Your task to perform on an android device: Open calendar and show me the third week of next month Image 0: 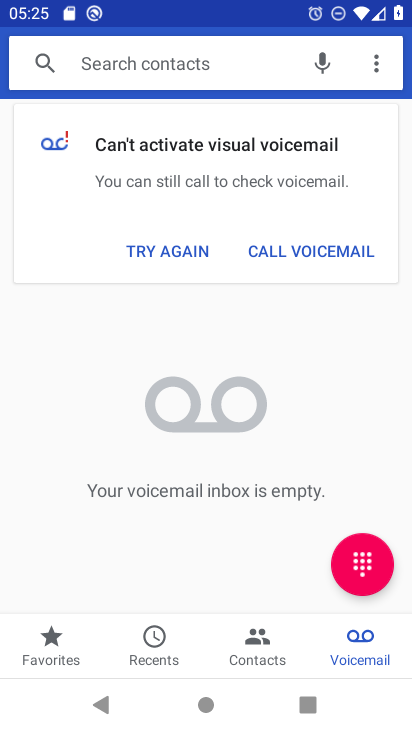
Step 0: press home button
Your task to perform on an android device: Open calendar and show me the third week of next month Image 1: 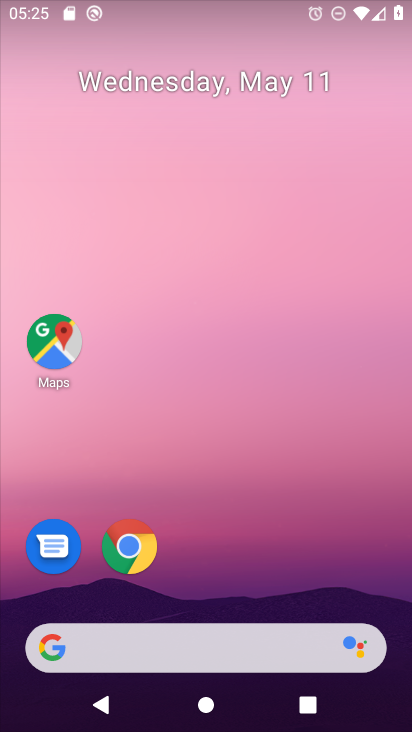
Step 1: drag from (300, 621) to (277, 33)
Your task to perform on an android device: Open calendar and show me the third week of next month Image 2: 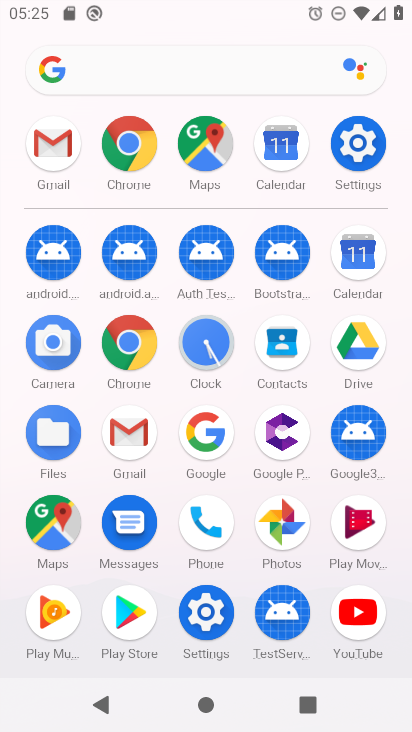
Step 2: click (359, 261)
Your task to perform on an android device: Open calendar and show me the third week of next month Image 3: 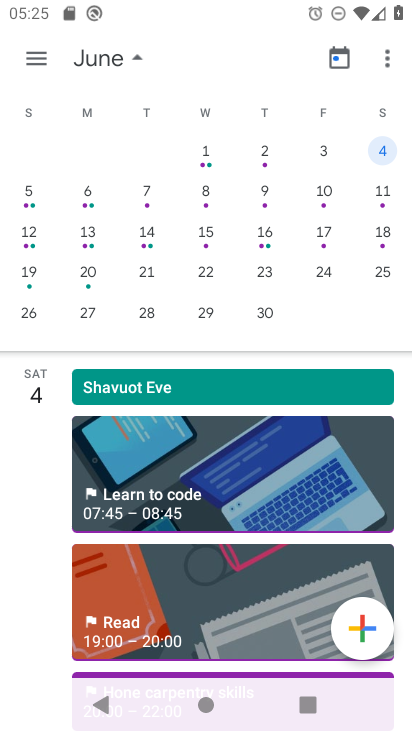
Step 3: click (263, 235)
Your task to perform on an android device: Open calendar and show me the third week of next month Image 4: 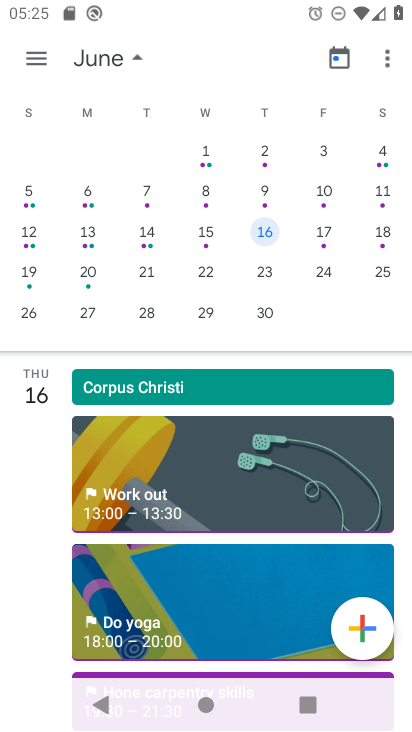
Step 4: task complete